Your task to perform on an android device: Show me popular videos on Youtube Image 0: 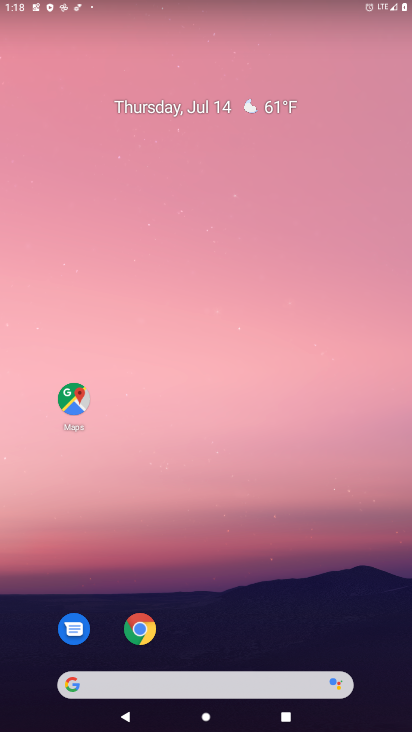
Step 0: drag from (267, 543) to (221, 191)
Your task to perform on an android device: Show me popular videos on Youtube Image 1: 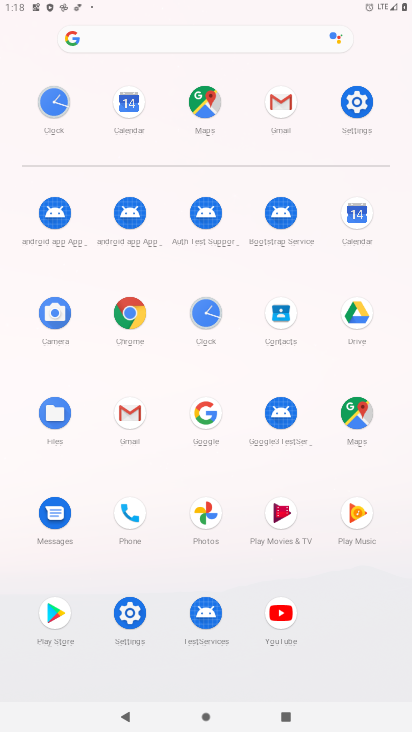
Step 1: click (282, 612)
Your task to perform on an android device: Show me popular videos on Youtube Image 2: 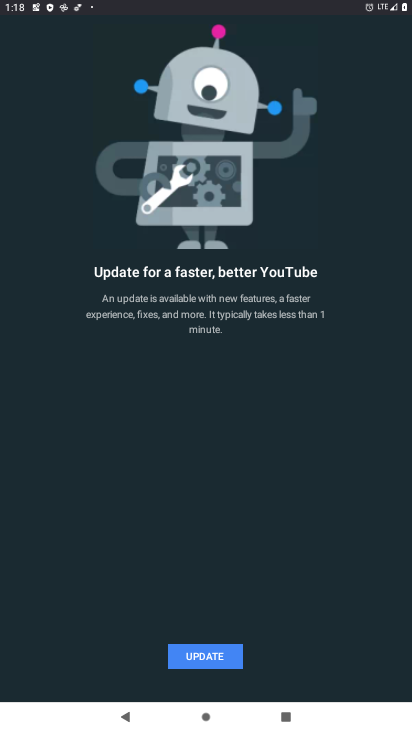
Step 2: click (206, 651)
Your task to perform on an android device: Show me popular videos on Youtube Image 3: 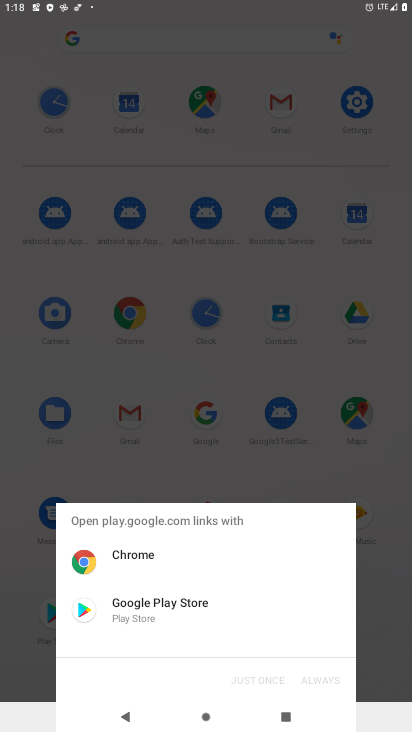
Step 3: click (144, 601)
Your task to perform on an android device: Show me popular videos on Youtube Image 4: 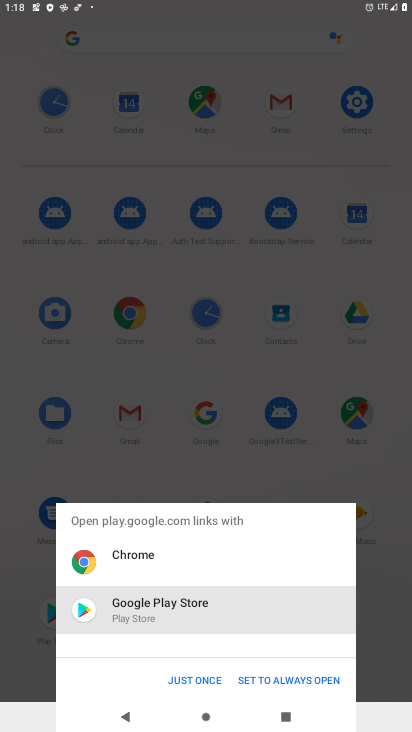
Step 4: click (194, 677)
Your task to perform on an android device: Show me popular videos on Youtube Image 5: 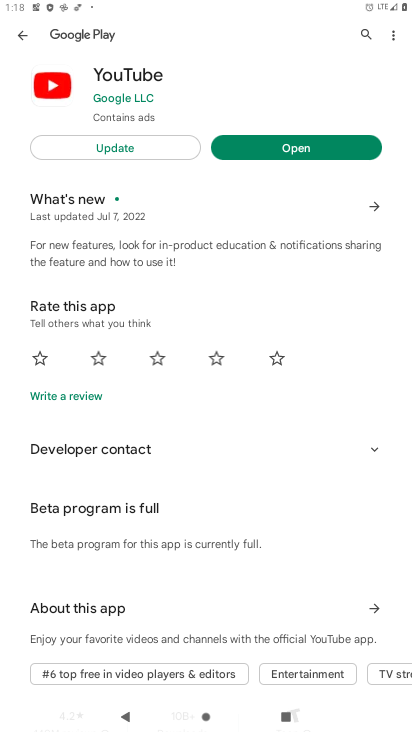
Step 5: click (111, 142)
Your task to perform on an android device: Show me popular videos on Youtube Image 6: 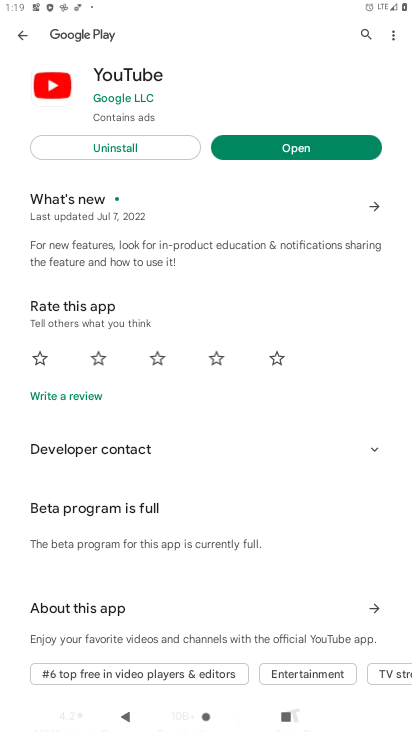
Step 6: click (272, 146)
Your task to perform on an android device: Show me popular videos on Youtube Image 7: 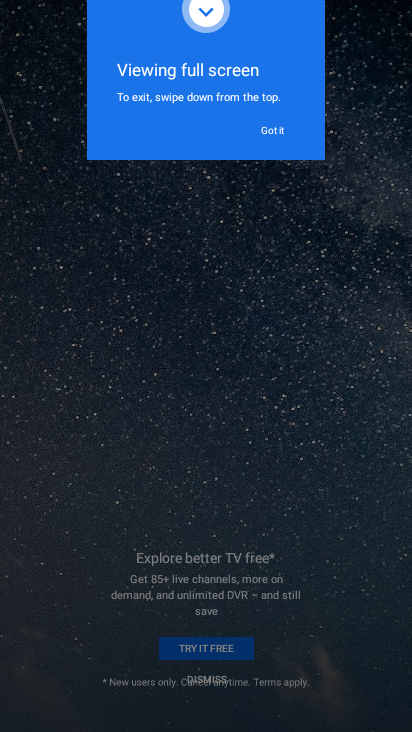
Step 7: click (203, 670)
Your task to perform on an android device: Show me popular videos on Youtube Image 8: 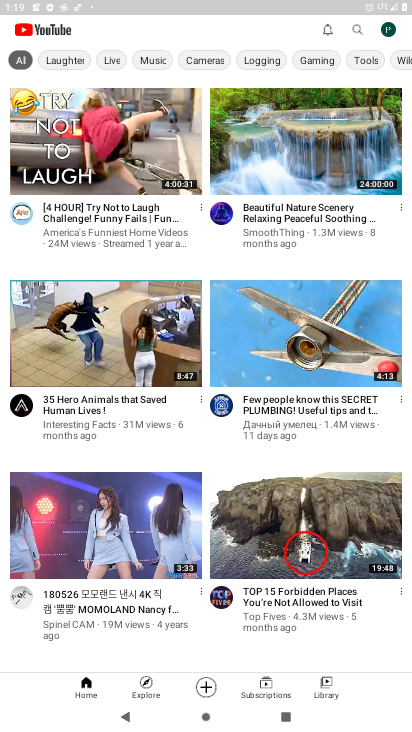
Step 8: click (143, 681)
Your task to perform on an android device: Show me popular videos on Youtube Image 9: 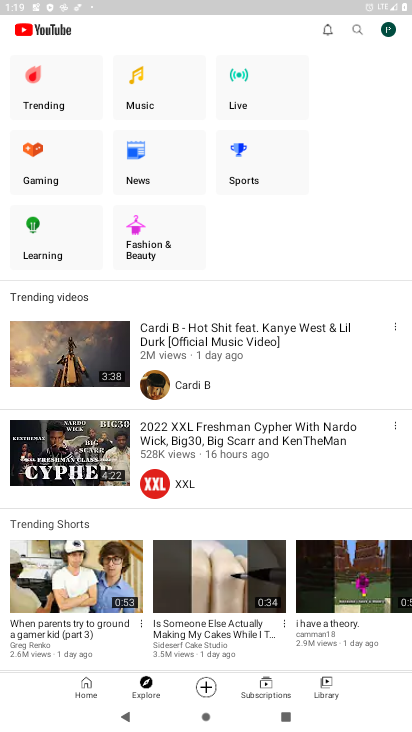
Step 9: task complete